Your task to perform on an android device: turn off notifications in google photos Image 0: 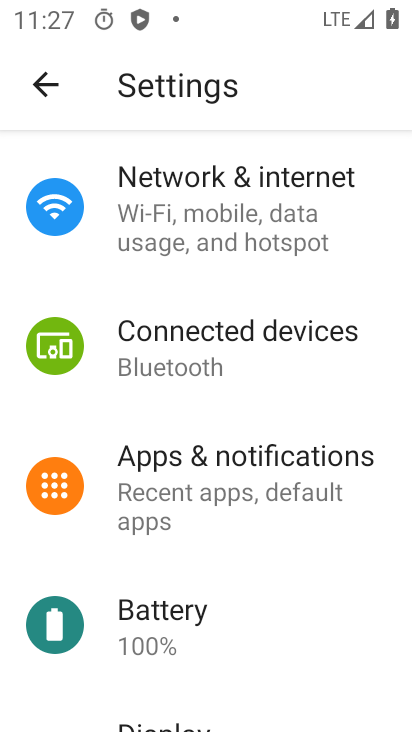
Step 0: press home button
Your task to perform on an android device: turn off notifications in google photos Image 1: 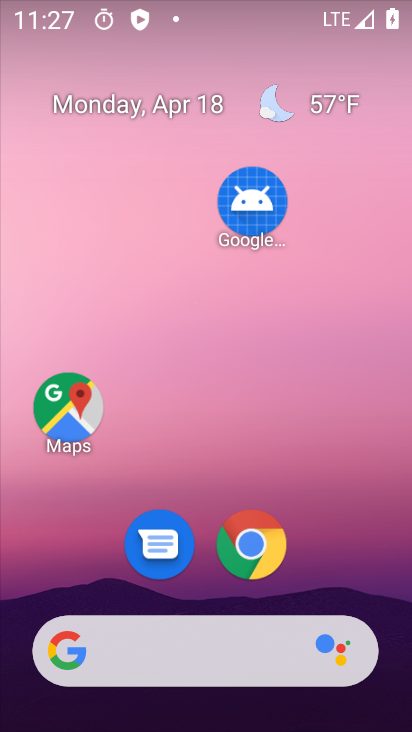
Step 1: drag from (287, 641) to (317, 240)
Your task to perform on an android device: turn off notifications in google photos Image 2: 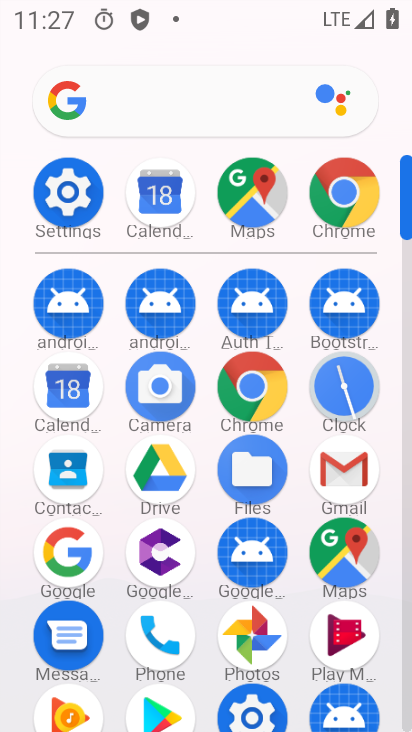
Step 2: click (241, 630)
Your task to perform on an android device: turn off notifications in google photos Image 3: 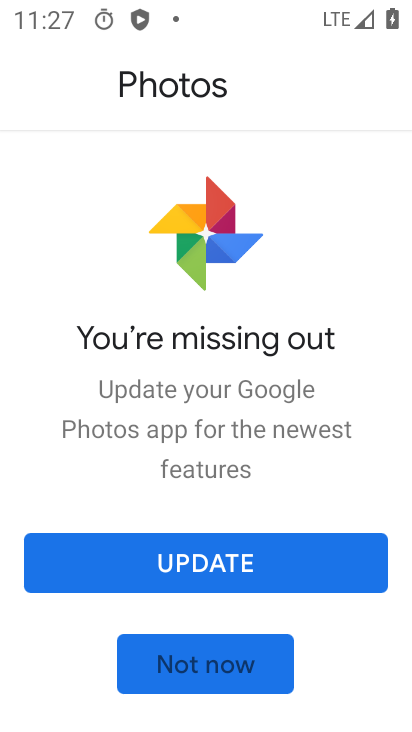
Step 3: click (194, 673)
Your task to perform on an android device: turn off notifications in google photos Image 4: 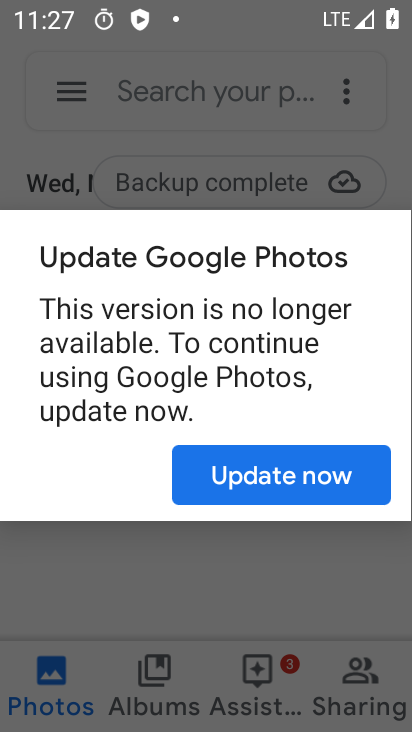
Step 4: press back button
Your task to perform on an android device: turn off notifications in google photos Image 5: 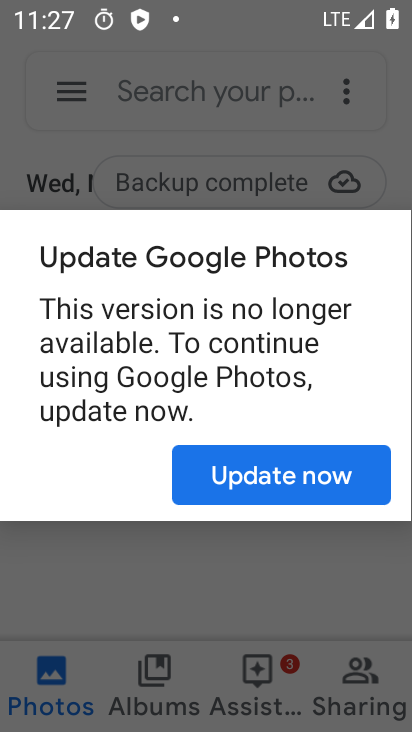
Step 5: click (57, 90)
Your task to perform on an android device: turn off notifications in google photos Image 6: 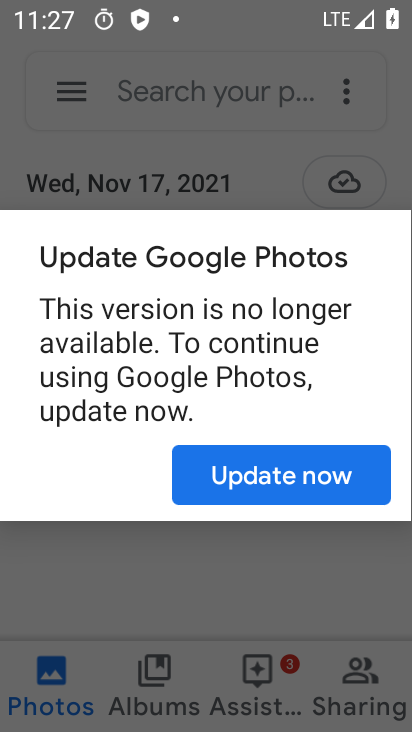
Step 6: click (239, 464)
Your task to perform on an android device: turn off notifications in google photos Image 7: 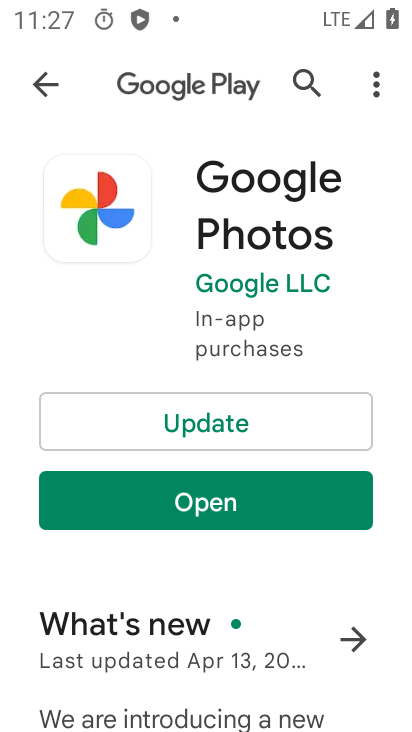
Step 7: press back button
Your task to perform on an android device: turn off notifications in google photos Image 8: 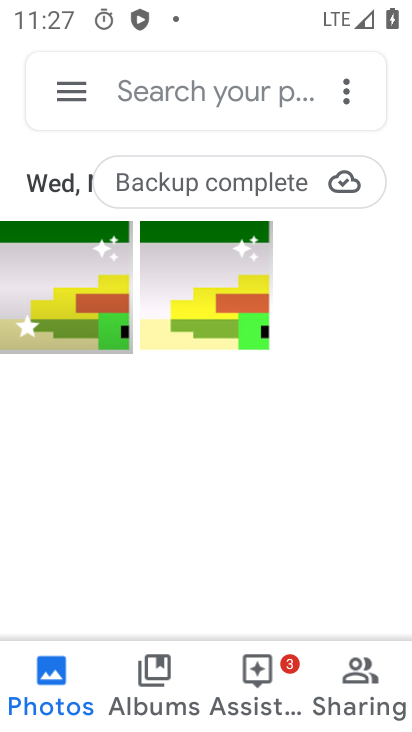
Step 8: click (84, 91)
Your task to perform on an android device: turn off notifications in google photos Image 9: 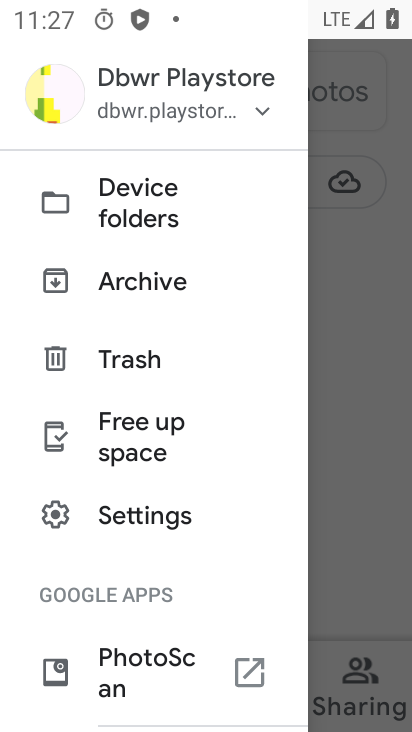
Step 9: click (155, 525)
Your task to perform on an android device: turn off notifications in google photos Image 10: 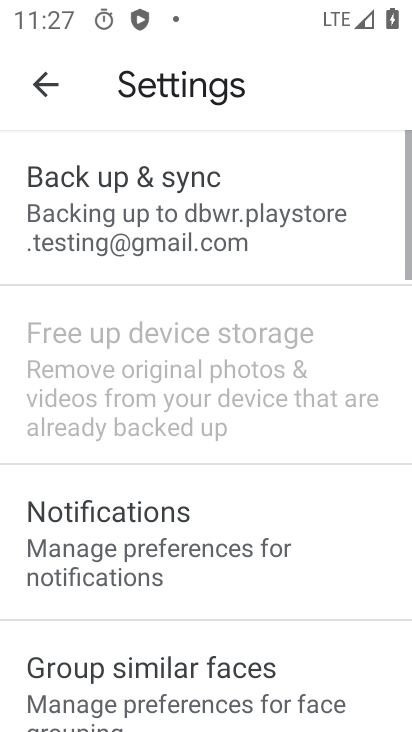
Step 10: click (175, 513)
Your task to perform on an android device: turn off notifications in google photos Image 11: 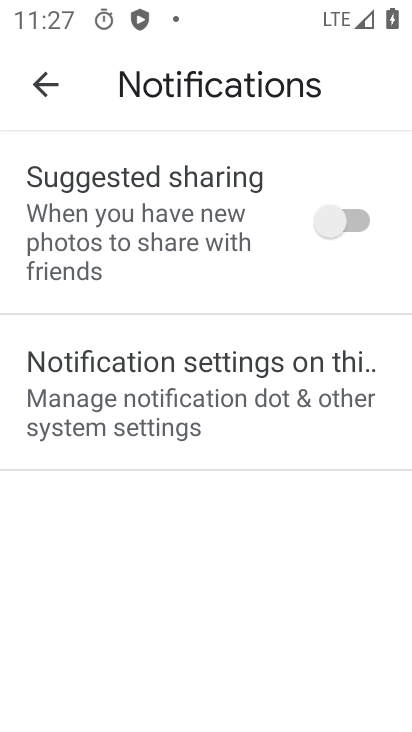
Step 11: click (228, 438)
Your task to perform on an android device: turn off notifications in google photos Image 12: 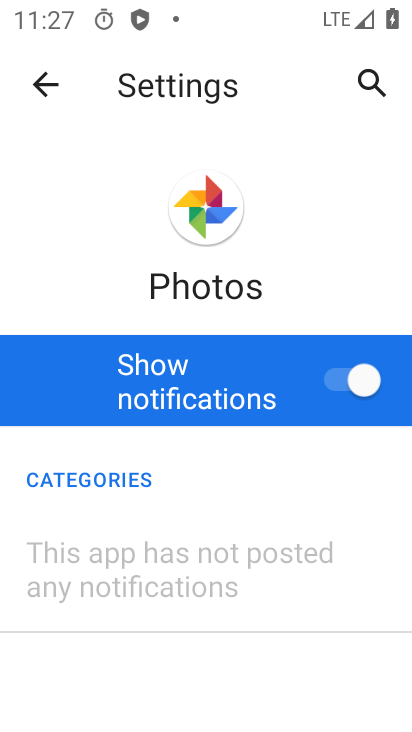
Step 12: click (325, 379)
Your task to perform on an android device: turn off notifications in google photos Image 13: 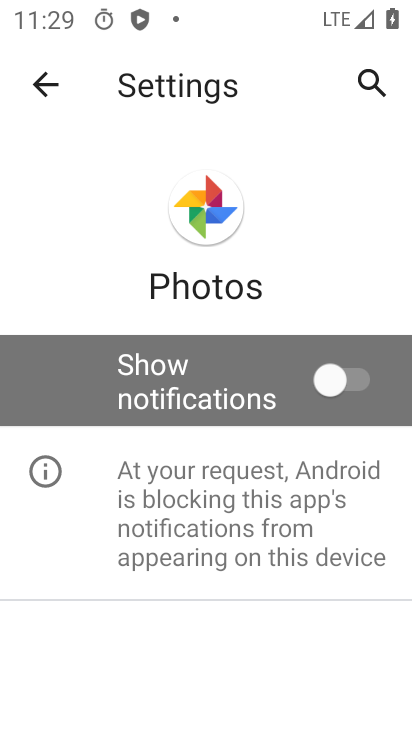
Step 13: task complete